Your task to perform on an android device: Open display settings Image 0: 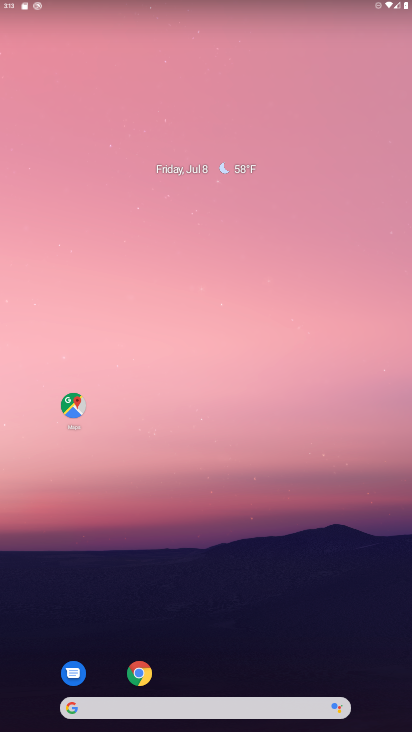
Step 0: drag from (242, 681) to (365, 170)
Your task to perform on an android device: Open display settings Image 1: 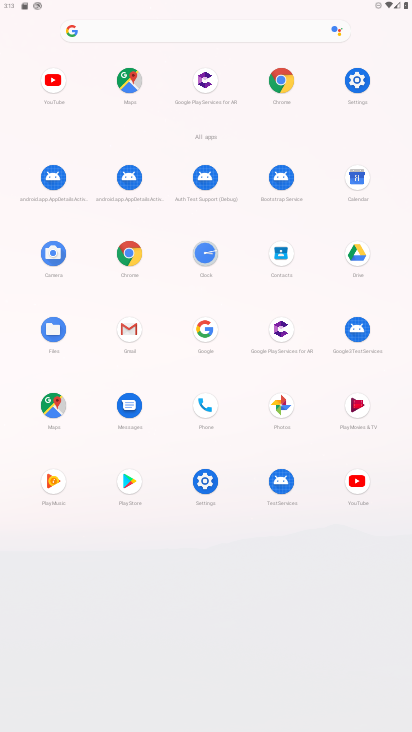
Step 1: click (357, 76)
Your task to perform on an android device: Open display settings Image 2: 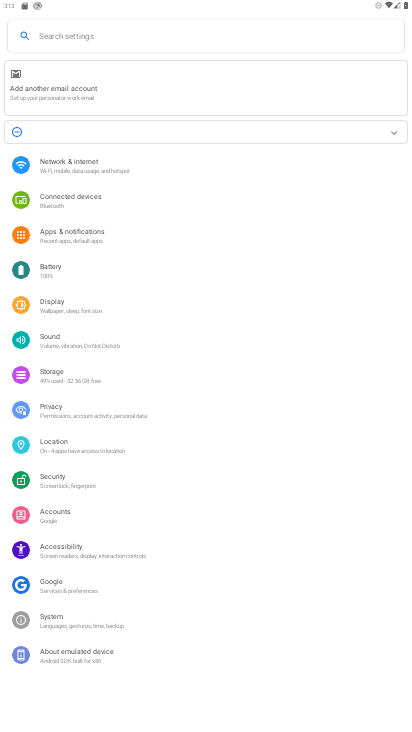
Step 2: click (54, 308)
Your task to perform on an android device: Open display settings Image 3: 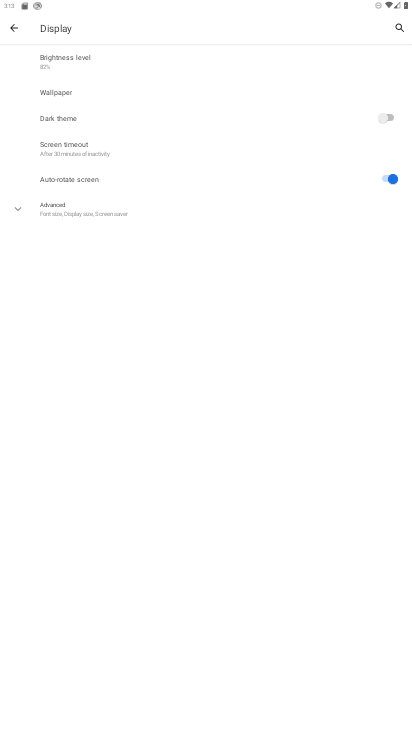
Step 3: click (86, 207)
Your task to perform on an android device: Open display settings Image 4: 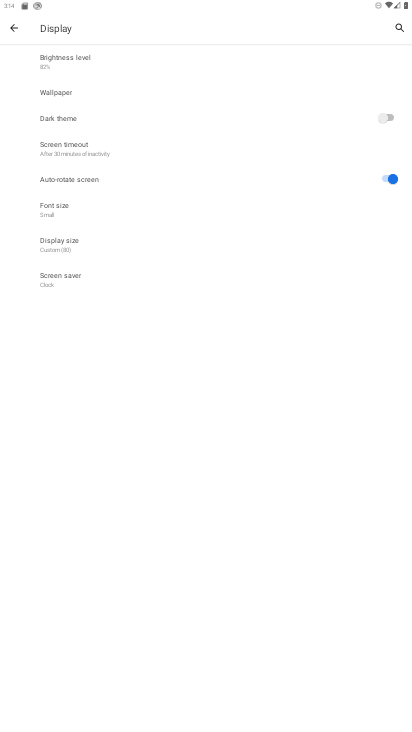
Step 4: task complete